Your task to perform on an android device: What is the capital of Germany? Image 0: 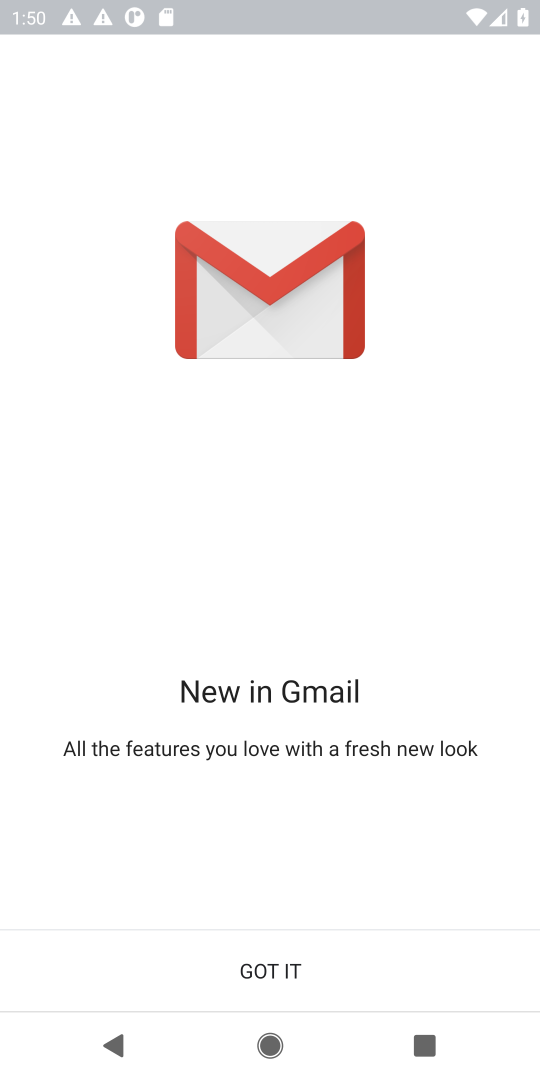
Step 0: drag from (183, 960) to (195, 306)
Your task to perform on an android device: What is the capital of Germany? Image 1: 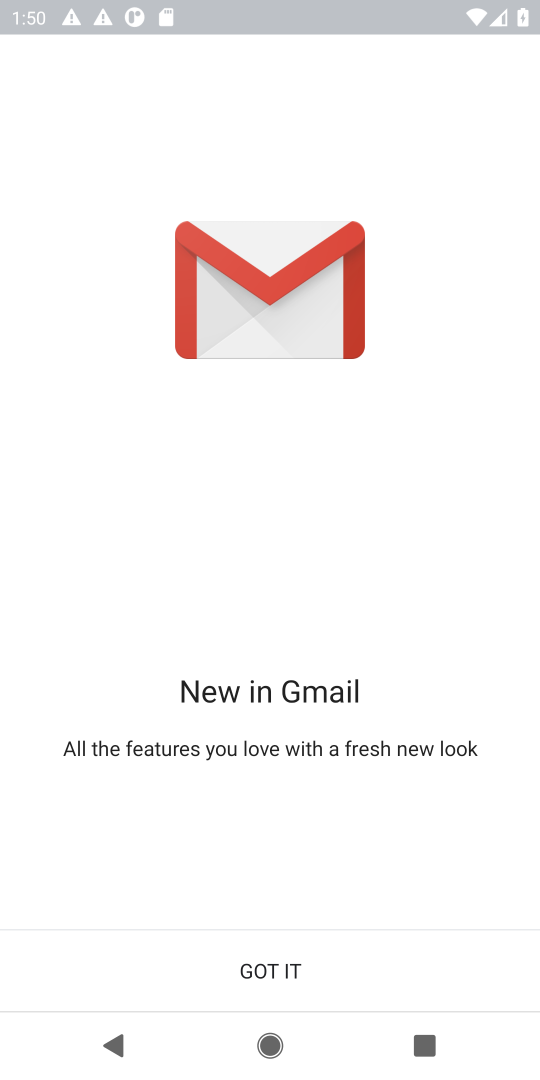
Step 1: press home button
Your task to perform on an android device: What is the capital of Germany? Image 2: 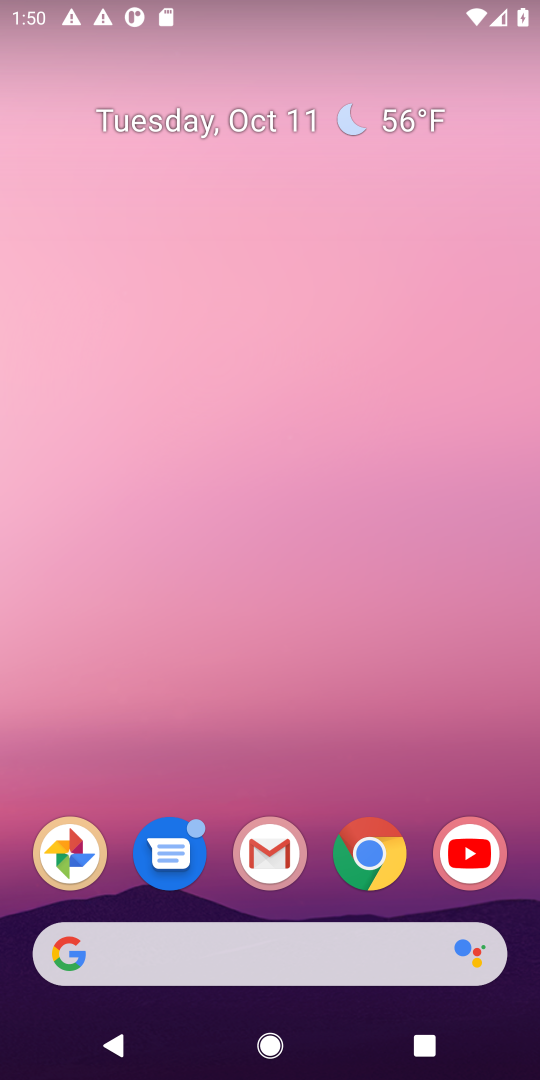
Step 2: drag from (336, 920) to (332, 233)
Your task to perform on an android device: What is the capital of Germany? Image 3: 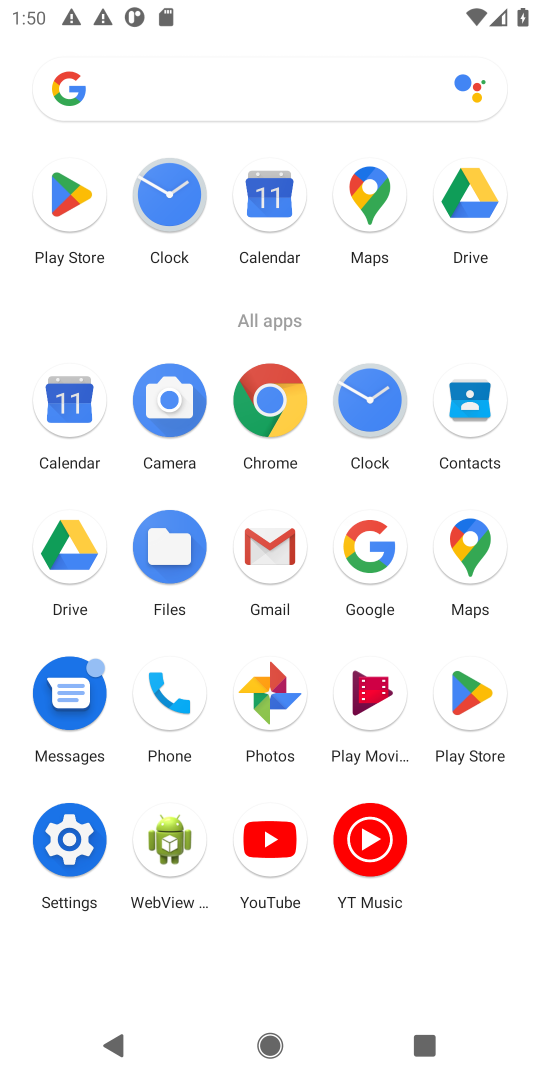
Step 3: click (368, 542)
Your task to perform on an android device: What is the capital of Germany? Image 4: 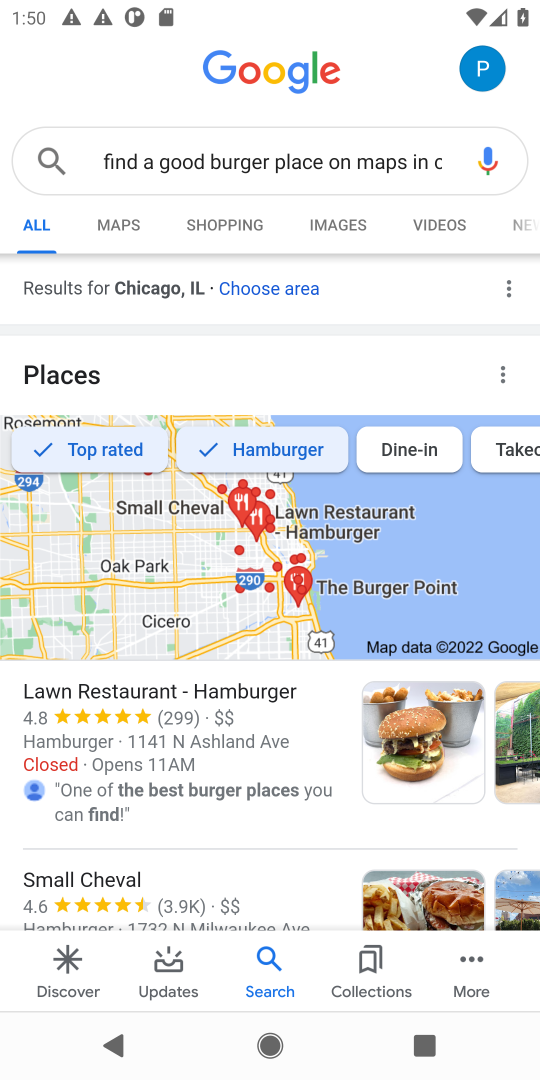
Step 4: click (269, 155)
Your task to perform on an android device: What is the capital of Germany? Image 5: 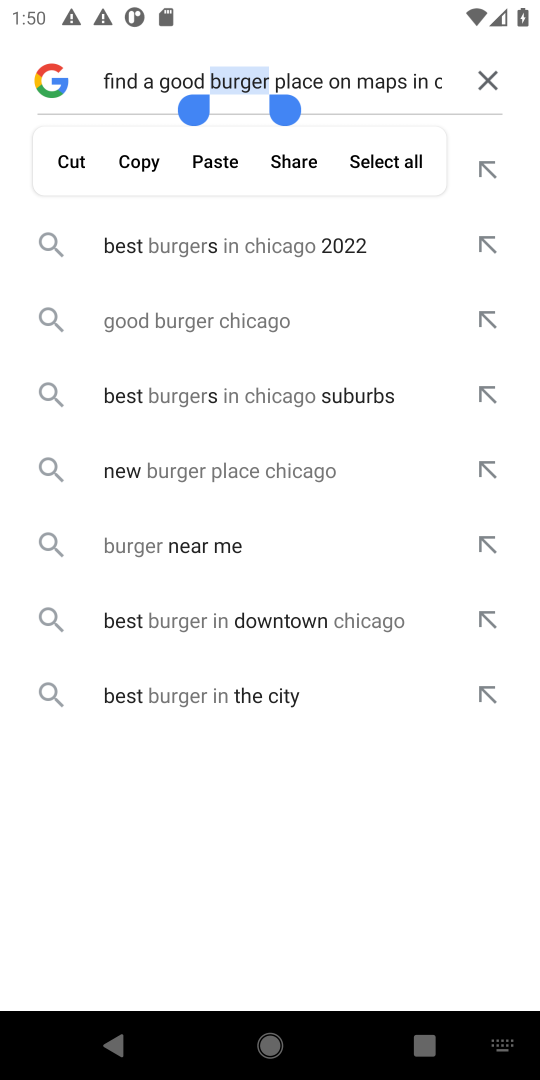
Step 5: click (497, 90)
Your task to perform on an android device: What is the capital of Germany? Image 6: 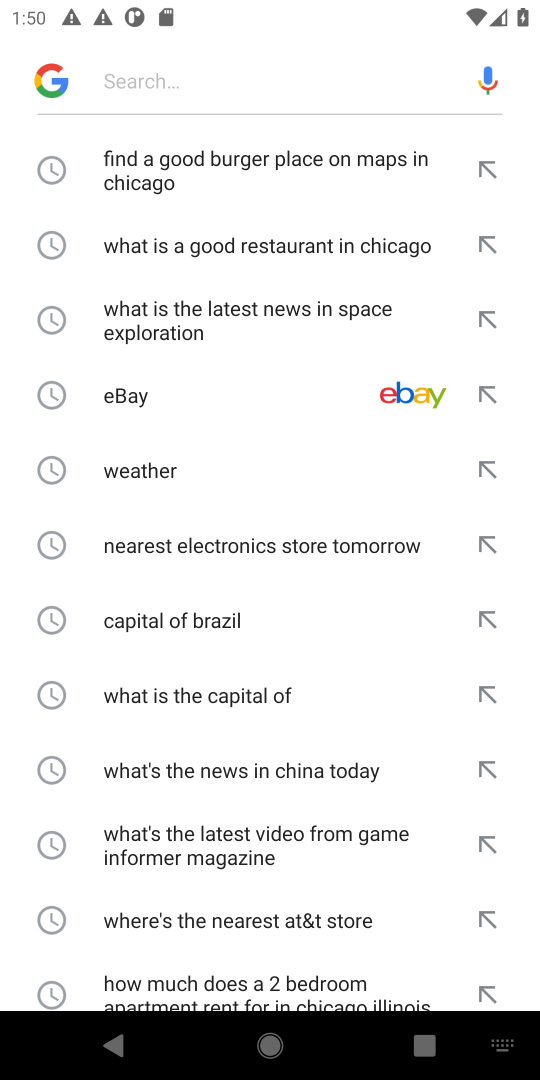
Step 6: type "What is the capital of Germany?"
Your task to perform on an android device: What is the capital of Germany? Image 7: 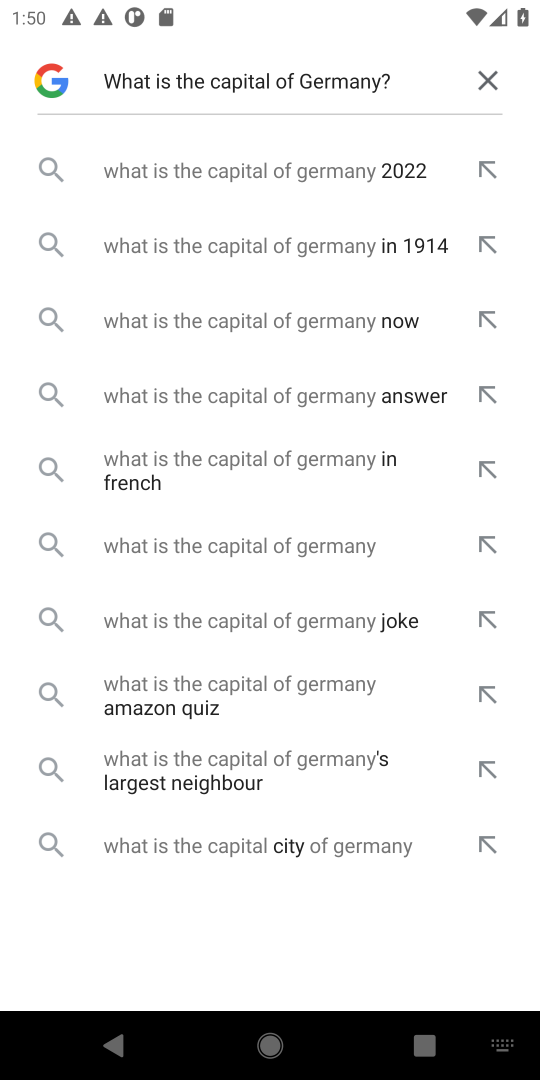
Step 7: click (188, 170)
Your task to perform on an android device: What is the capital of Germany? Image 8: 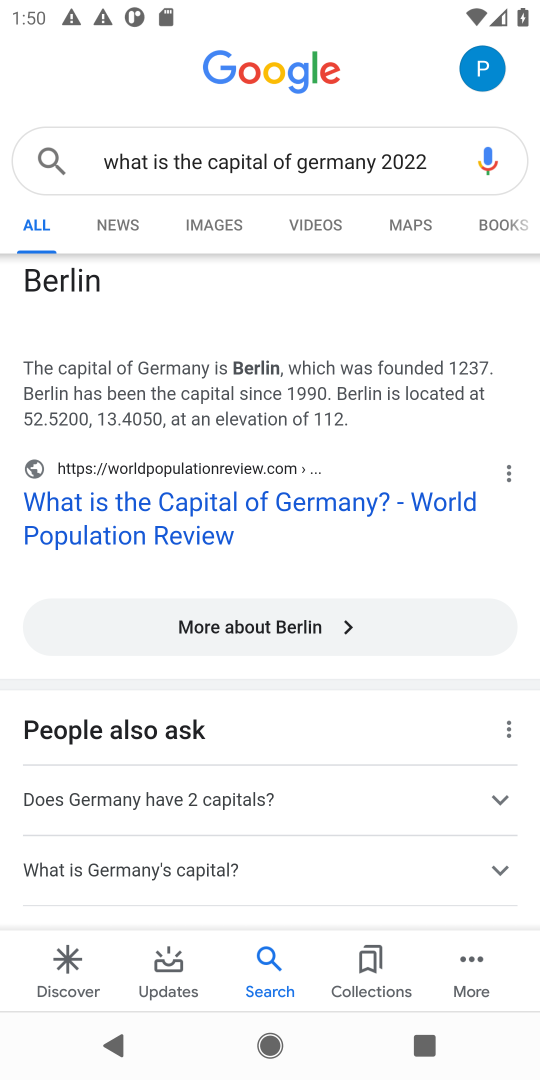
Step 8: click (165, 515)
Your task to perform on an android device: What is the capital of Germany? Image 9: 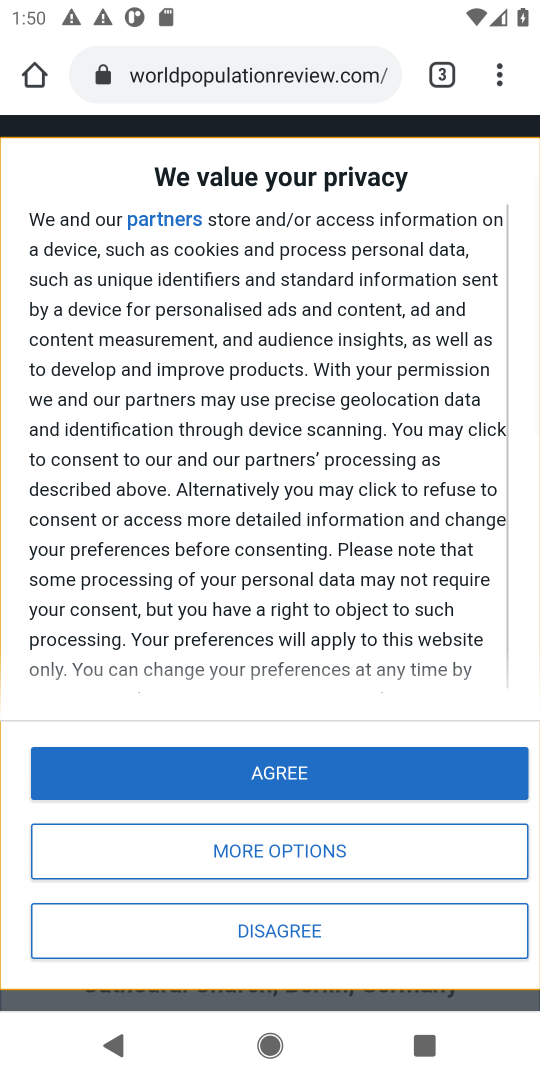
Step 9: task complete